Your task to perform on an android device: turn notification dots on Image 0: 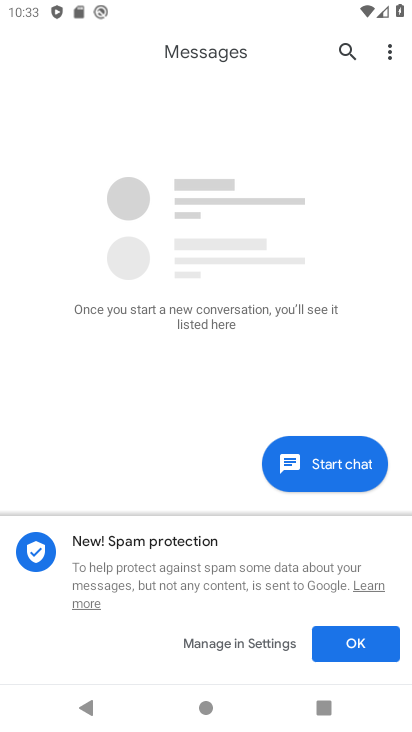
Step 0: press home button
Your task to perform on an android device: turn notification dots on Image 1: 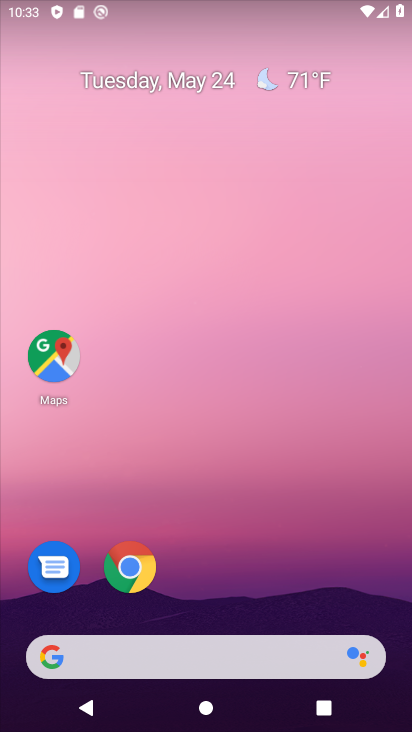
Step 1: drag from (387, 676) to (329, 218)
Your task to perform on an android device: turn notification dots on Image 2: 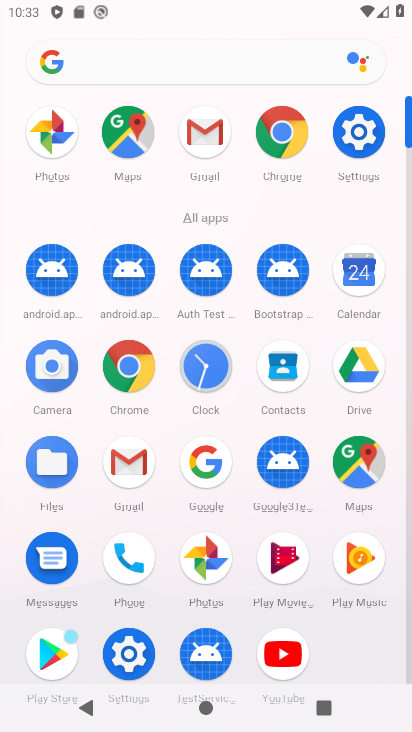
Step 2: click (134, 655)
Your task to perform on an android device: turn notification dots on Image 3: 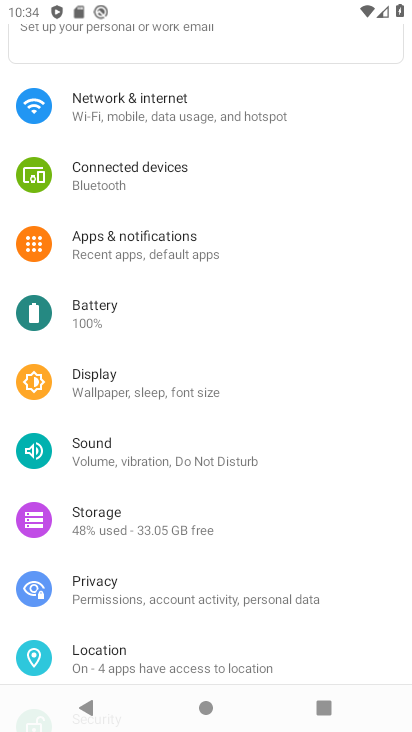
Step 3: press back button
Your task to perform on an android device: turn notification dots on Image 4: 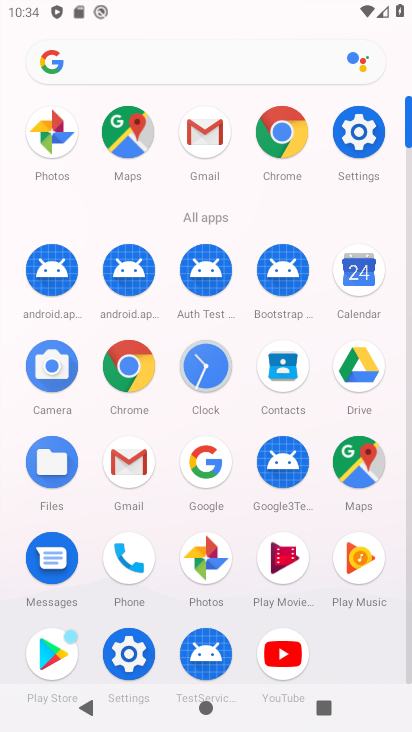
Step 4: click (358, 133)
Your task to perform on an android device: turn notification dots on Image 5: 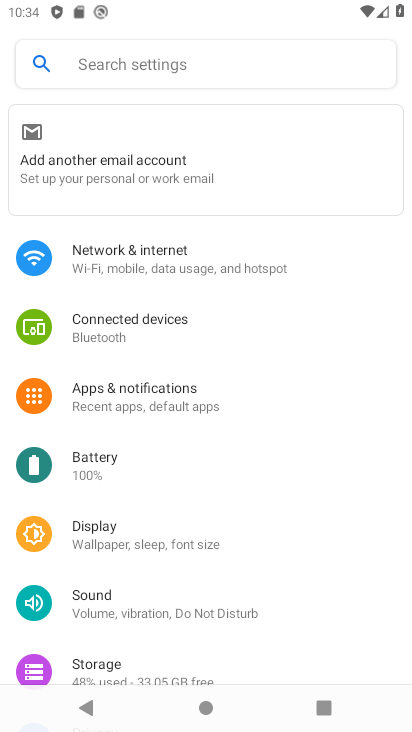
Step 5: click (122, 392)
Your task to perform on an android device: turn notification dots on Image 6: 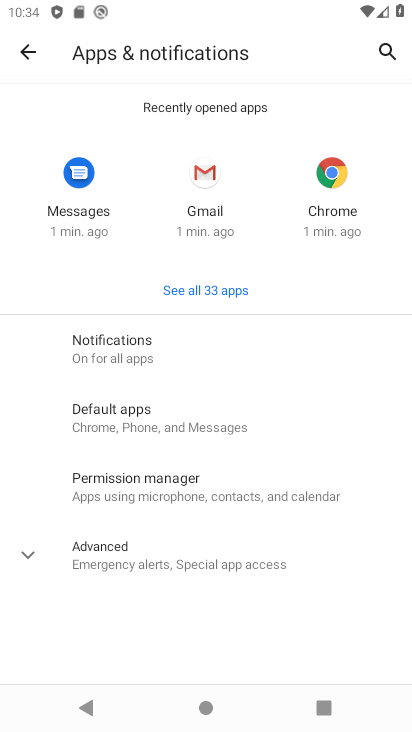
Step 6: click (93, 344)
Your task to perform on an android device: turn notification dots on Image 7: 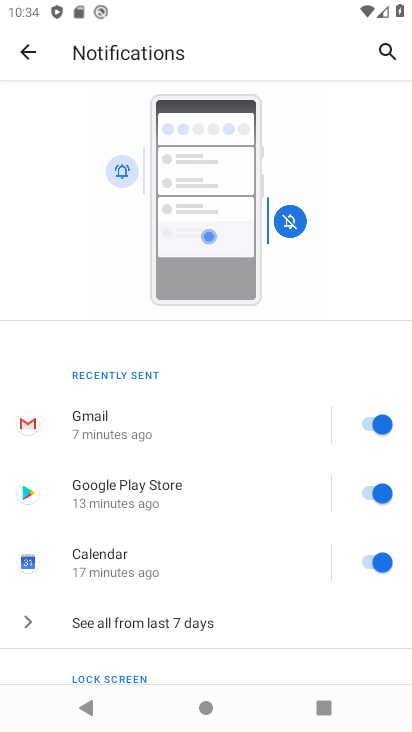
Step 7: drag from (275, 612) to (311, 232)
Your task to perform on an android device: turn notification dots on Image 8: 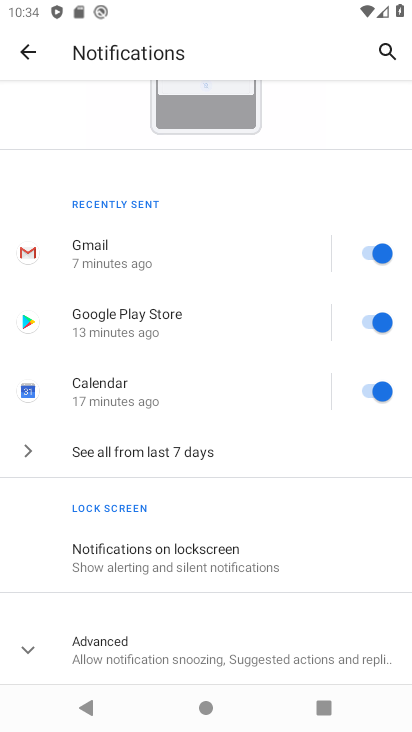
Step 8: drag from (306, 607) to (300, 294)
Your task to perform on an android device: turn notification dots on Image 9: 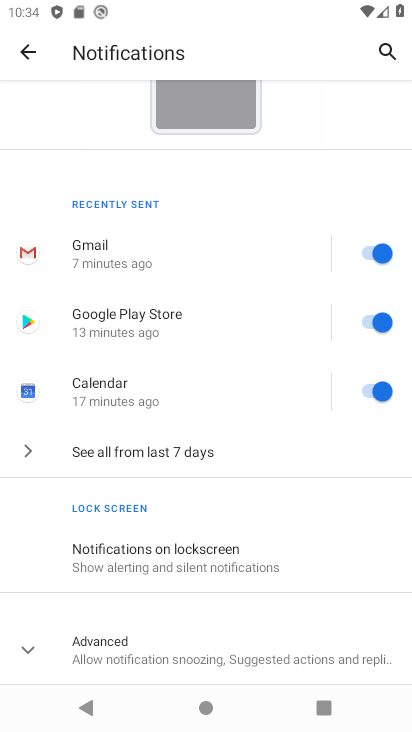
Step 9: click (29, 647)
Your task to perform on an android device: turn notification dots on Image 10: 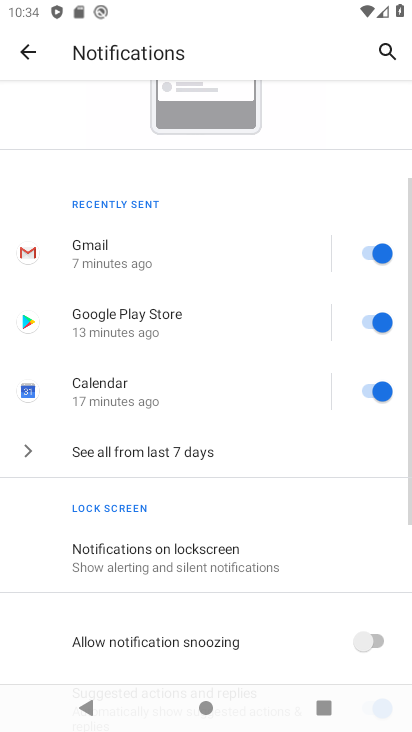
Step 10: task complete